Your task to perform on an android device: Check the weather Image 0: 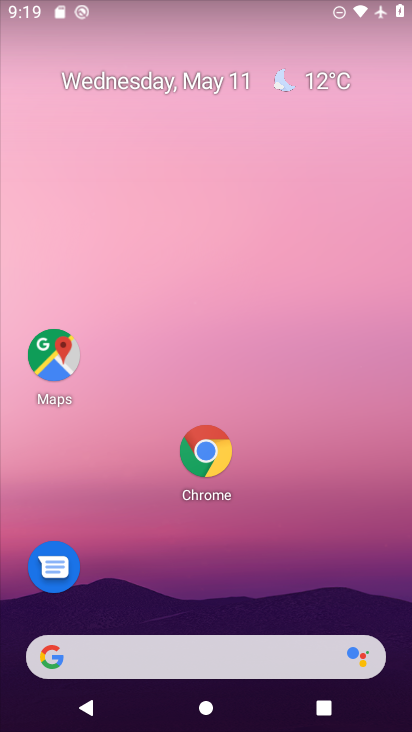
Step 0: click (319, 86)
Your task to perform on an android device: Check the weather Image 1: 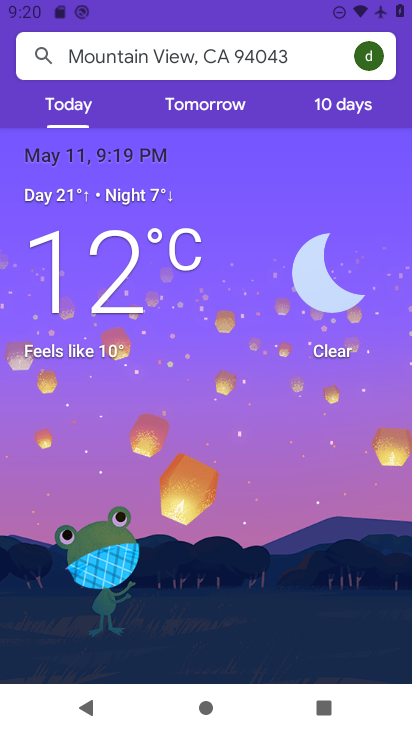
Step 1: task complete